Your task to perform on an android device: Open the calendar and show me this week's events Image 0: 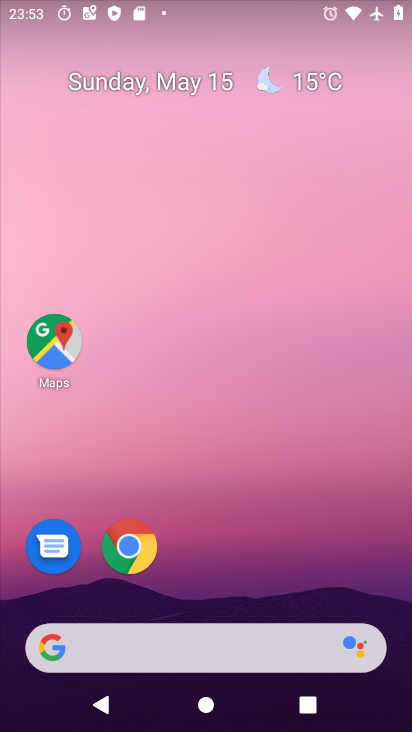
Step 0: drag from (256, 721) to (173, 85)
Your task to perform on an android device: Open the calendar and show me this week's events Image 1: 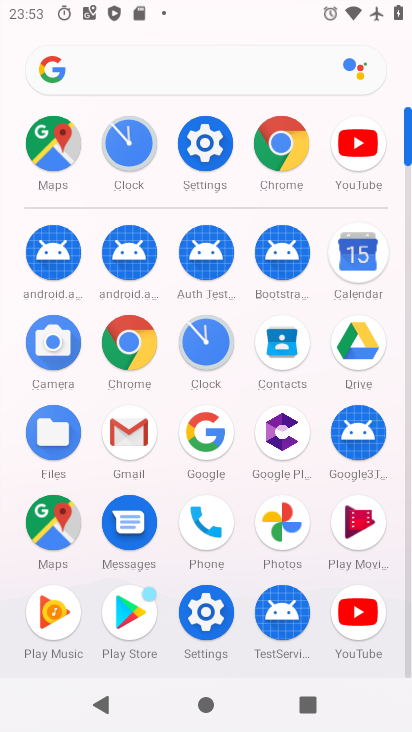
Step 1: click (353, 254)
Your task to perform on an android device: Open the calendar and show me this week's events Image 2: 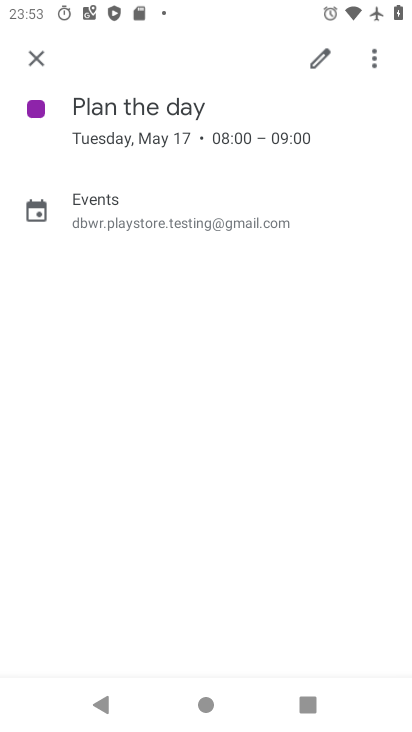
Step 2: task complete